Your task to perform on an android device: Go to accessibility settings Image 0: 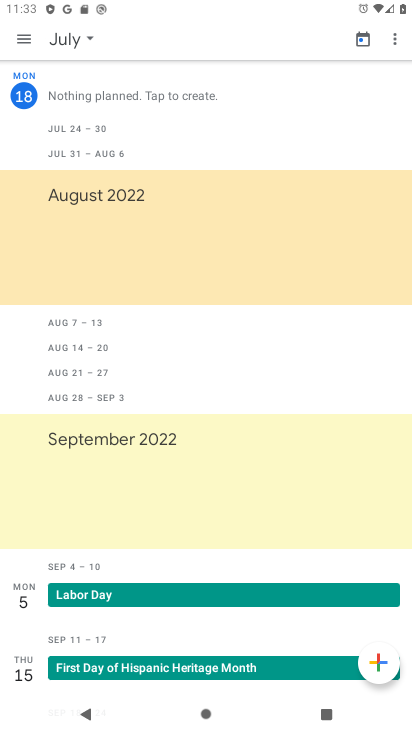
Step 0: press home button
Your task to perform on an android device: Go to accessibility settings Image 1: 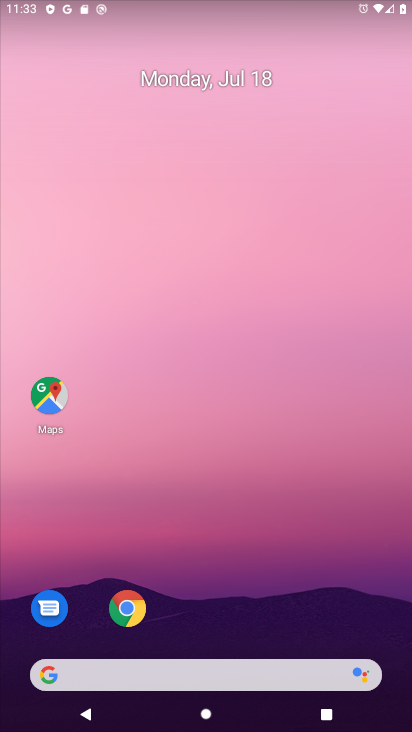
Step 1: drag from (221, 629) to (294, 61)
Your task to perform on an android device: Go to accessibility settings Image 2: 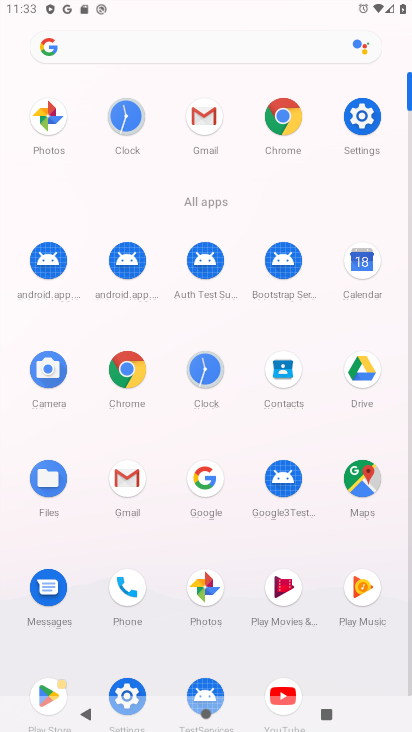
Step 2: click (359, 105)
Your task to perform on an android device: Go to accessibility settings Image 3: 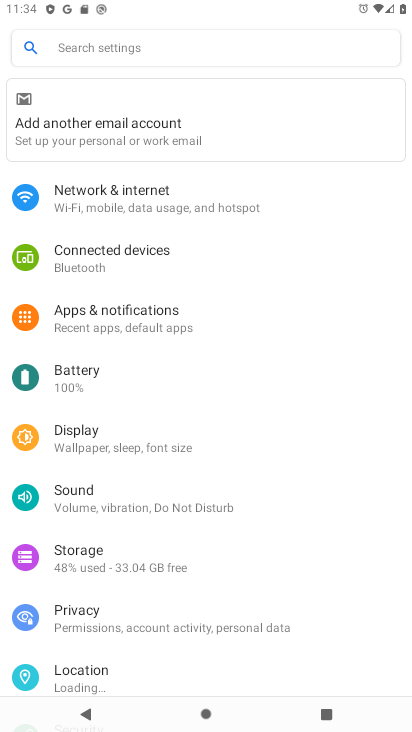
Step 3: drag from (188, 594) to (171, 218)
Your task to perform on an android device: Go to accessibility settings Image 4: 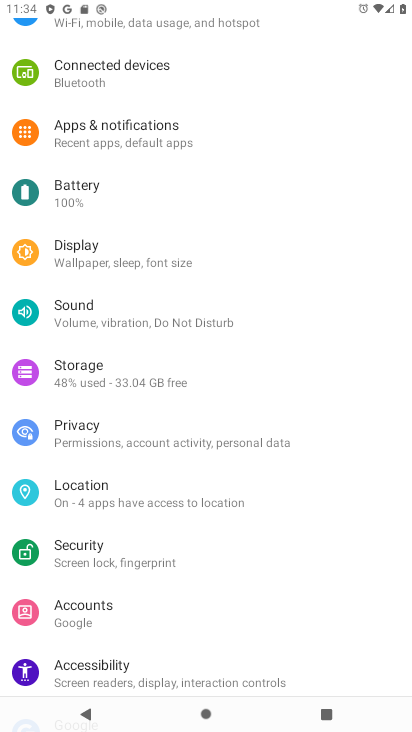
Step 4: click (118, 671)
Your task to perform on an android device: Go to accessibility settings Image 5: 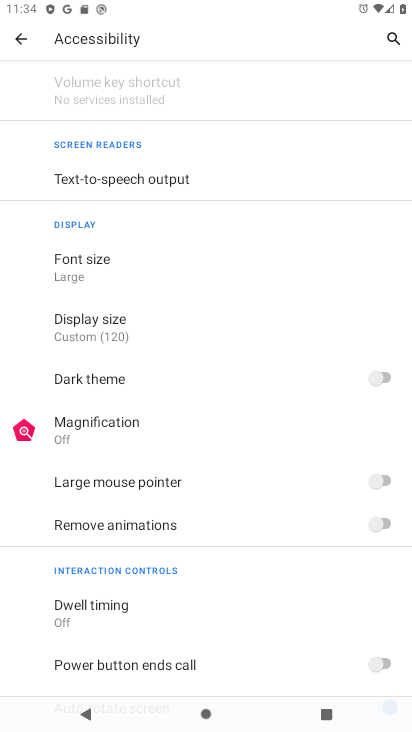
Step 5: task complete